Your task to perform on an android device: set default search engine in the chrome app Image 0: 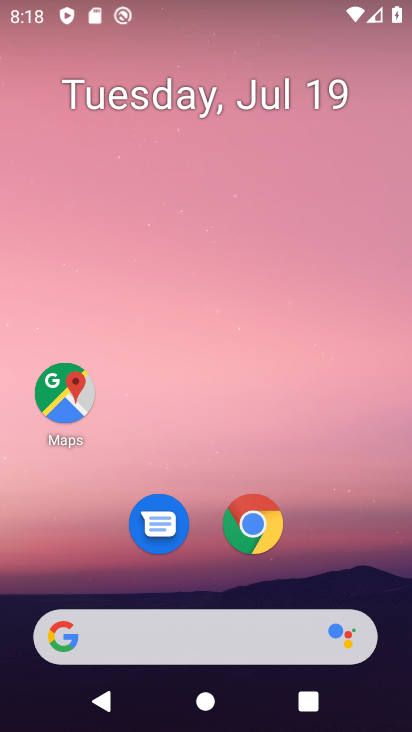
Step 0: click (260, 518)
Your task to perform on an android device: set default search engine in the chrome app Image 1: 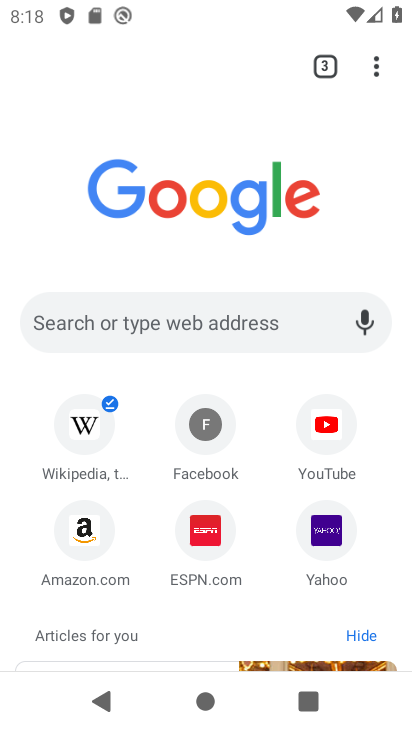
Step 1: drag from (379, 68) to (228, 552)
Your task to perform on an android device: set default search engine in the chrome app Image 2: 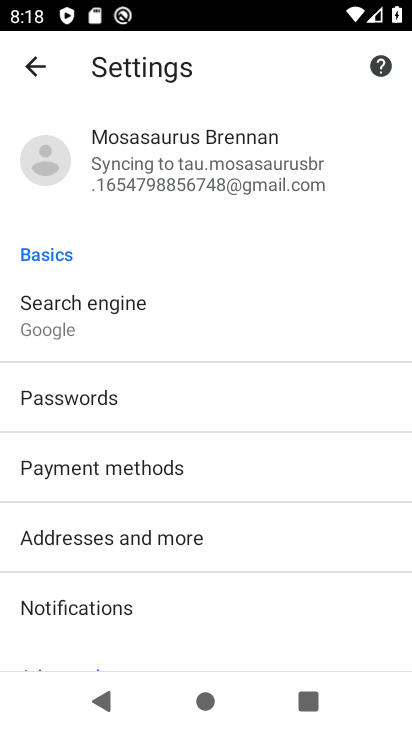
Step 2: click (123, 327)
Your task to perform on an android device: set default search engine in the chrome app Image 3: 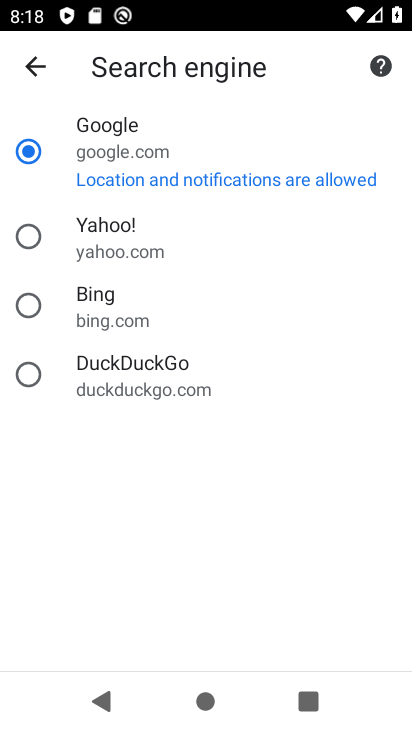
Step 3: click (34, 228)
Your task to perform on an android device: set default search engine in the chrome app Image 4: 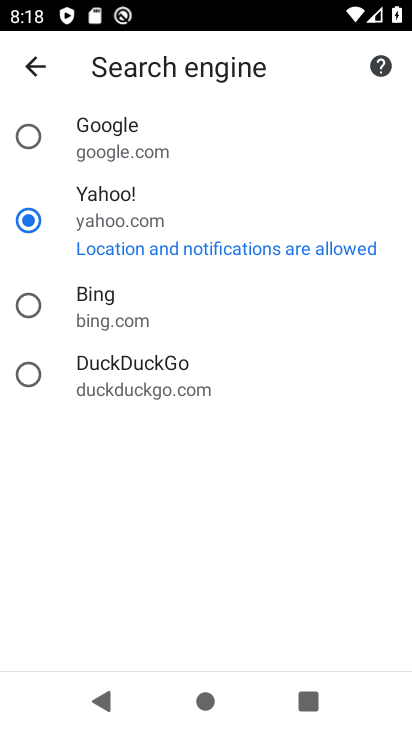
Step 4: task complete